Your task to perform on an android device: turn off notifications settings in the gmail app Image 0: 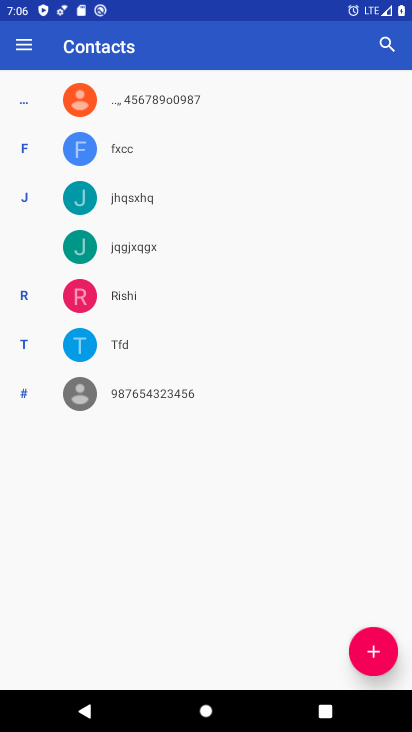
Step 0: press back button
Your task to perform on an android device: turn off notifications settings in the gmail app Image 1: 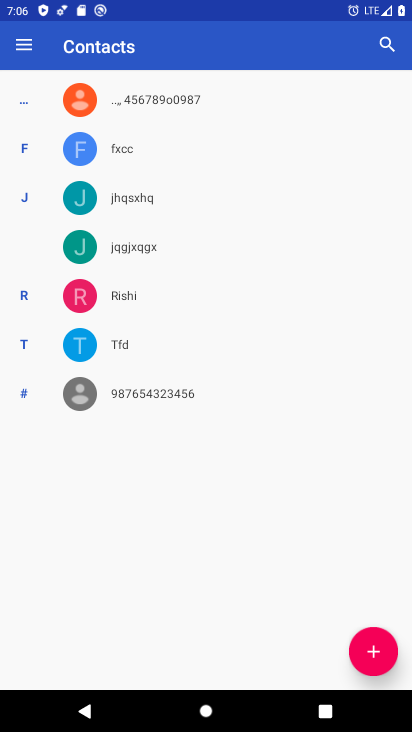
Step 1: press home button
Your task to perform on an android device: turn off notifications settings in the gmail app Image 2: 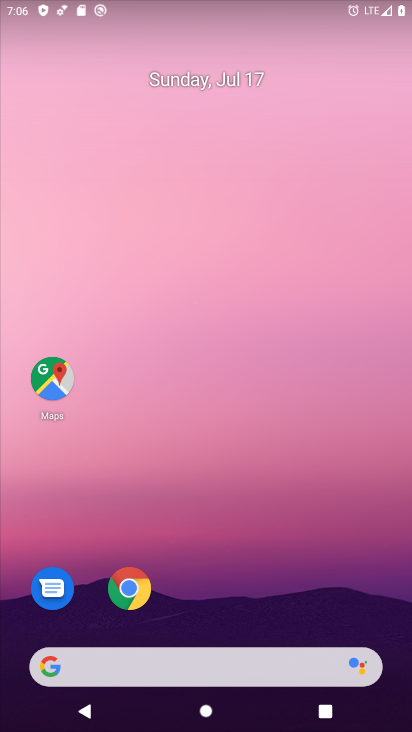
Step 2: drag from (384, 655) to (238, 0)
Your task to perform on an android device: turn off notifications settings in the gmail app Image 3: 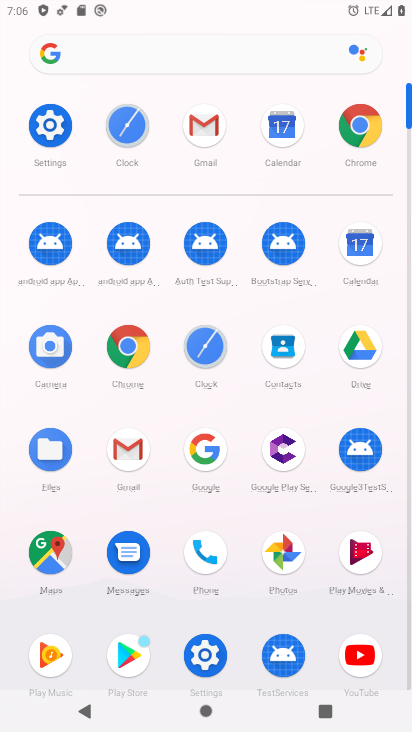
Step 3: click (119, 456)
Your task to perform on an android device: turn off notifications settings in the gmail app Image 4: 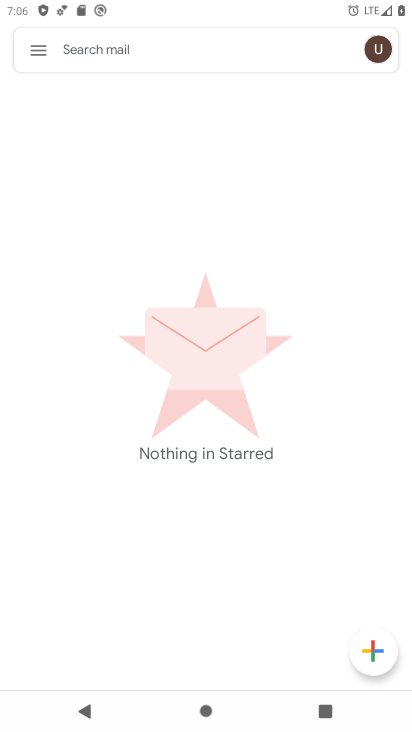
Step 4: click (29, 40)
Your task to perform on an android device: turn off notifications settings in the gmail app Image 5: 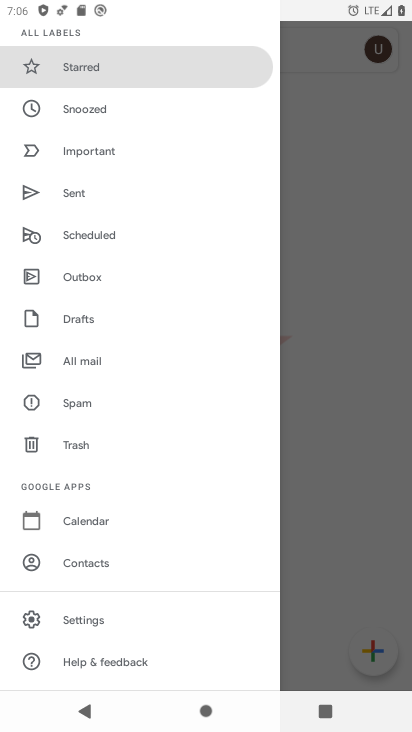
Step 5: click (79, 621)
Your task to perform on an android device: turn off notifications settings in the gmail app Image 6: 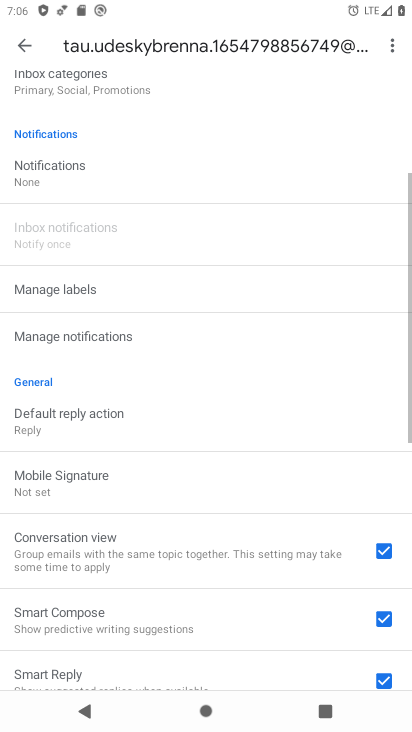
Step 6: click (60, 156)
Your task to perform on an android device: turn off notifications settings in the gmail app Image 7: 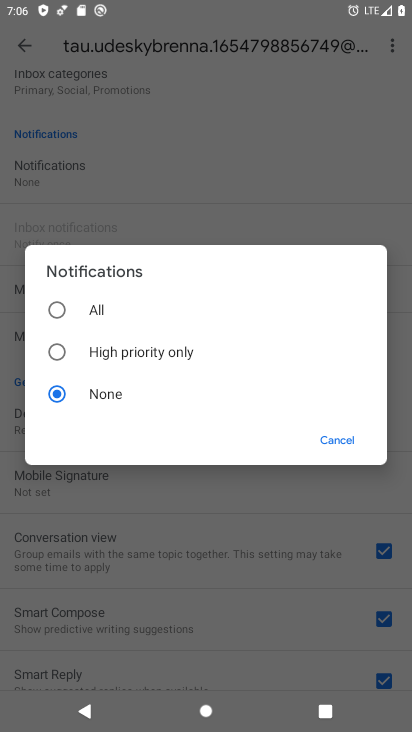
Step 7: task complete